Your task to perform on an android device: clear all cookies in the chrome app Image 0: 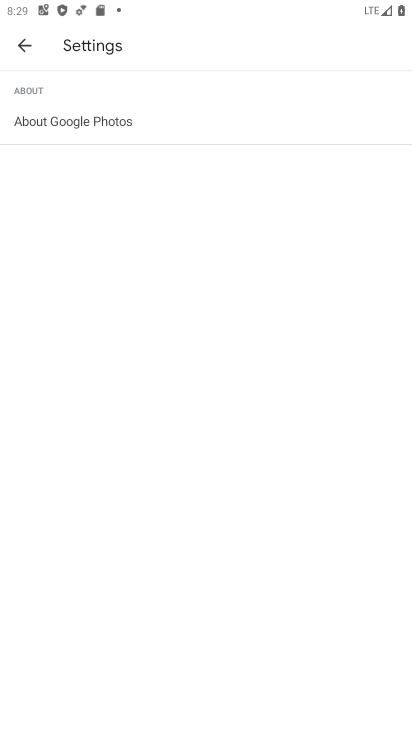
Step 0: press home button
Your task to perform on an android device: clear all cookies in the chrome app Image 1: 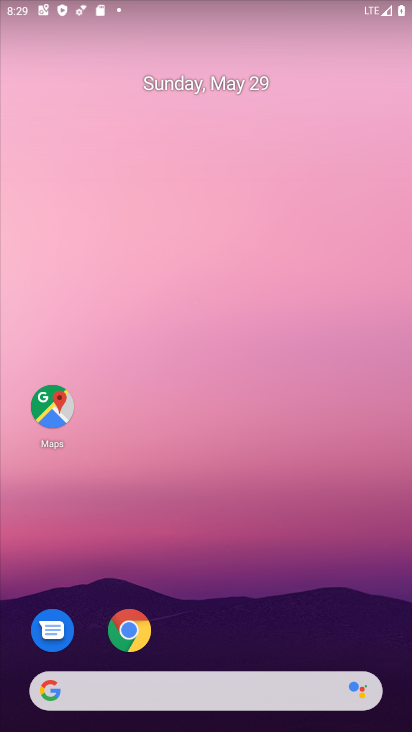
Step 1: click (112, 617)
Your task to perform on an android device: clear all cookies in the chrome app Image 2: 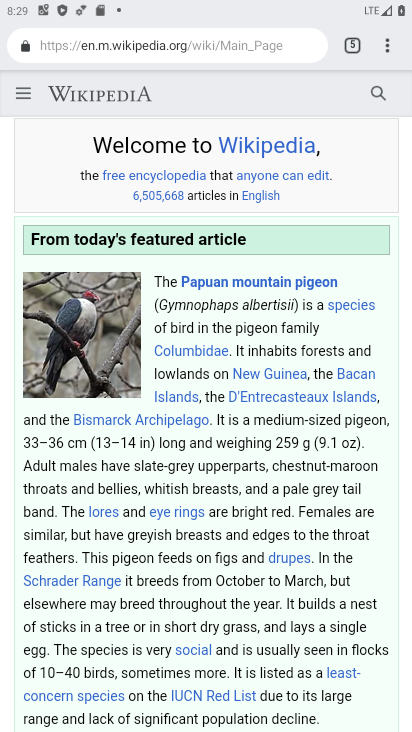
Step 2: click (394, 47)
Your task to perform on an android device: clear all cookies in the chrome app Image 3: 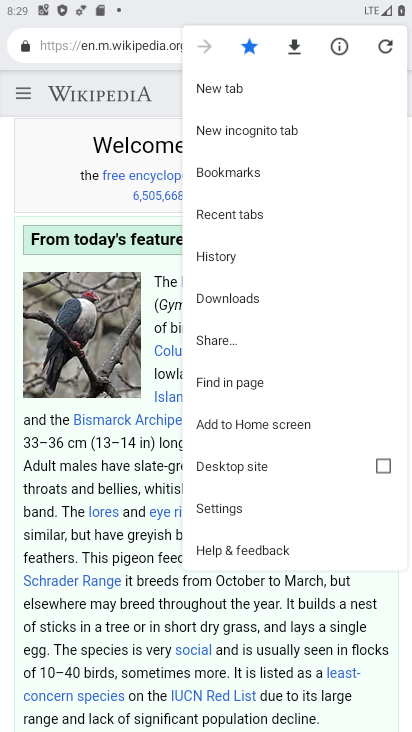
Step 3: click (232, 253)
Your task to perform on an android device: clear all cookies in the chrome app Image 4: 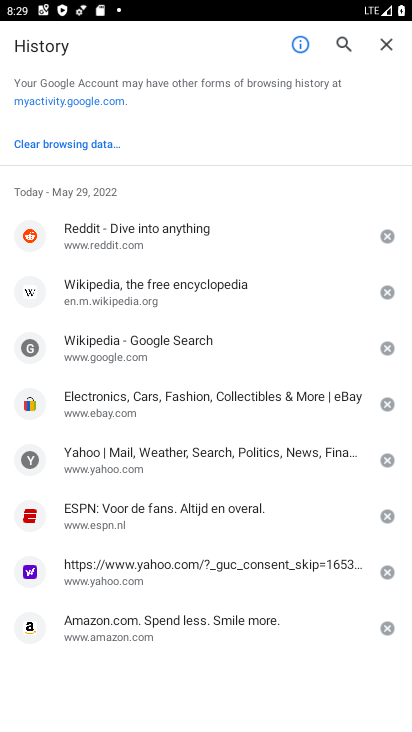
Step 4: click (79, 148)
Your task to perform on an android device: clear all cookies in the chrome app Image 5: 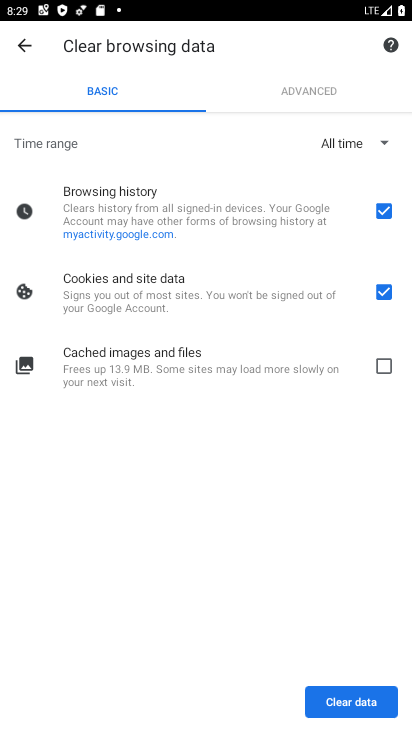
Step 5: click (362, 704)
Your task to perform on an android device: clear all cookies in the chrome app Image 6: 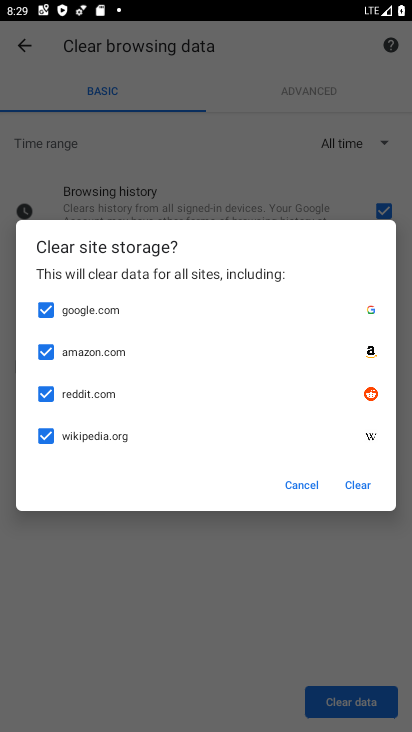
Step 6: click (360, 484)
Your task to perform on an android device: clear all cookies in the chrome app Image 7: 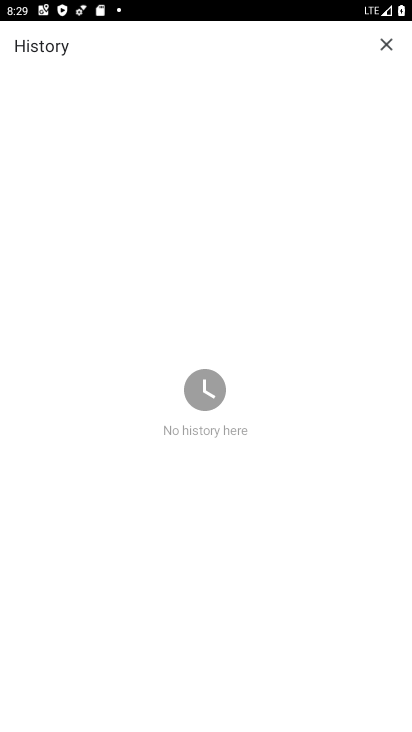
Step 7: task complete